Your task to perform on an android device: empty trash in the gmail app Image 0: 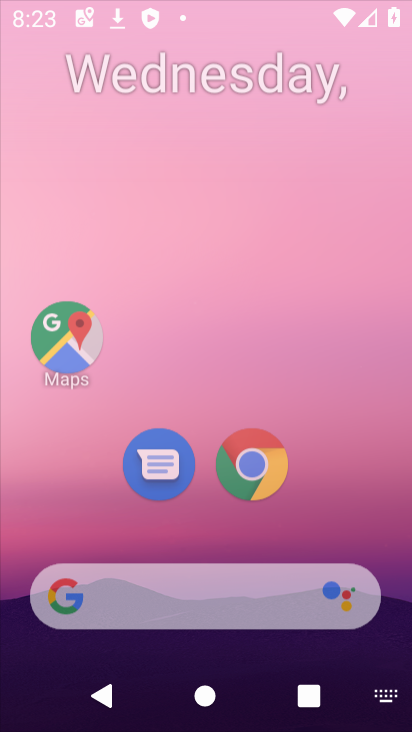
Step 0: drag from (205, 255) to (183, 179)
Your task to perform on an android device: empty trash in the gmail app Image 1: 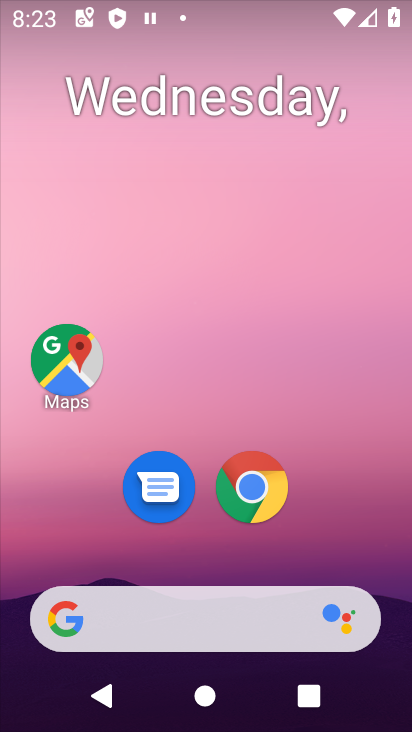
Step 1: drag from (272, 689) to (207, 220)
Your task to perform on an android device: empty trash in the gmail app Image 2: 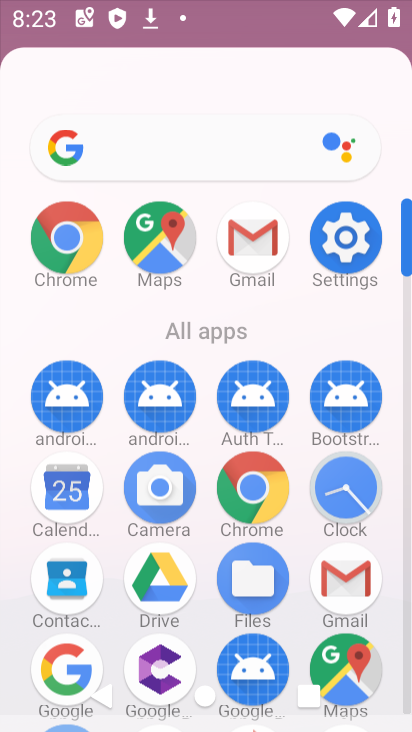
Step 2: drag from (325, 596) to (273, 159)
Your task to perform on an android device: empty trash in the gmail app Image 3: 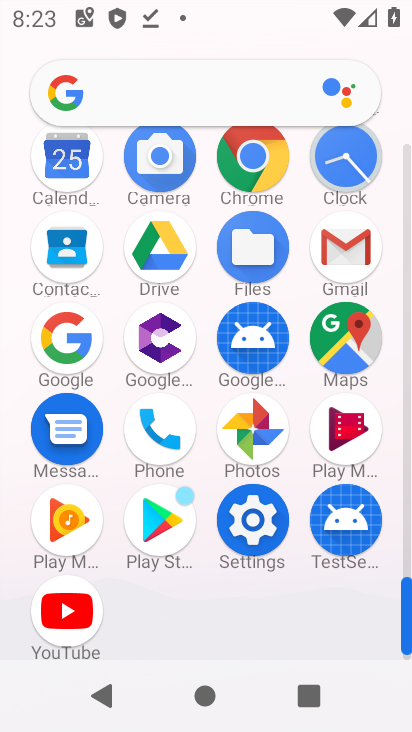
Step 3: click (326, 244)
Your task to perform on an android device: empty trash in the gmail app Image 4: 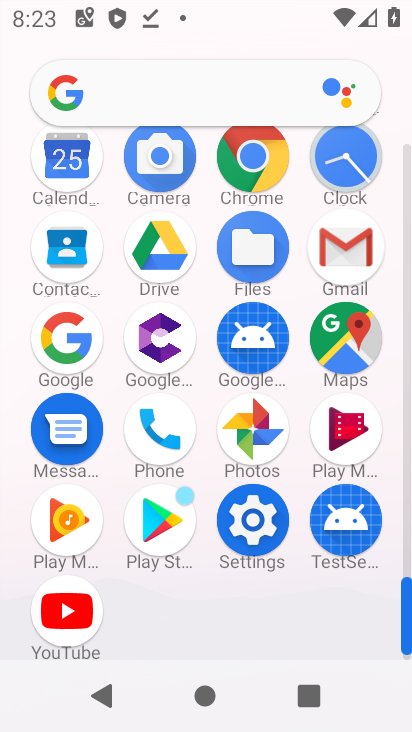
Step 4: click (332, 243)
Your task to perform on an android device: empty trash in the gmail app Image 5: 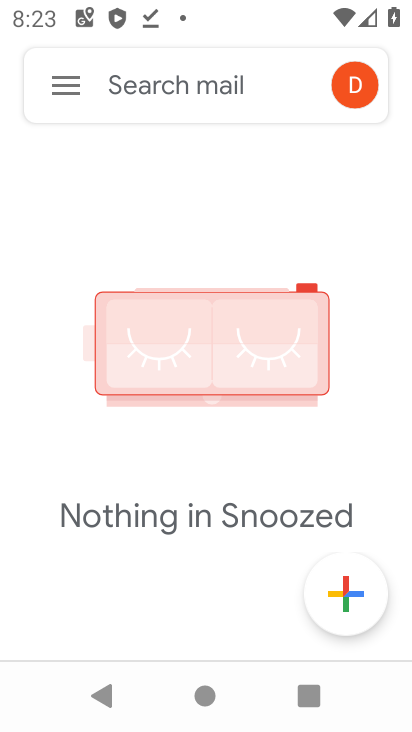
Step 5: click (78, 90)
Your task to perform on an android device: empty trash in the gmail app Image 6: 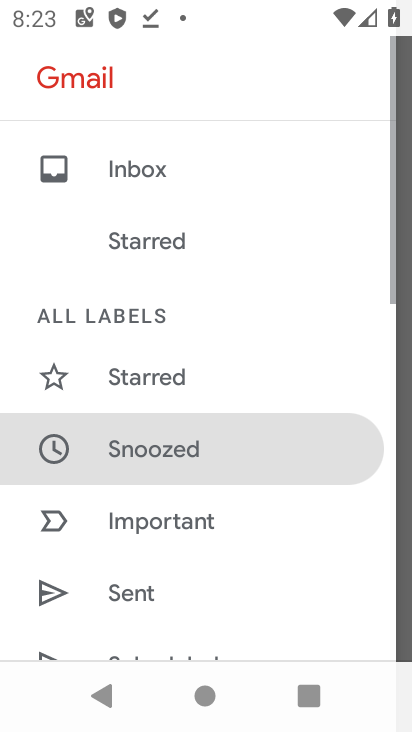
Step 6: click (78, 90)
Your task to perform on an android device: empty trash in the gmail app Image 7: 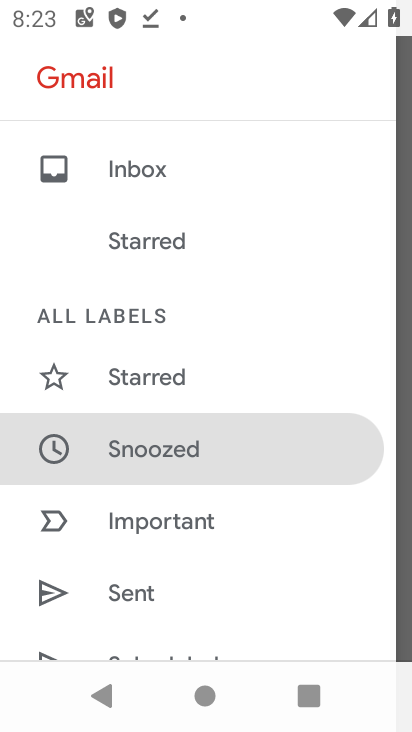
Step 7: drag from (145, 579) to (135, 86)
Your task to perform on an android device: empty trash in the gmail app Image 8: 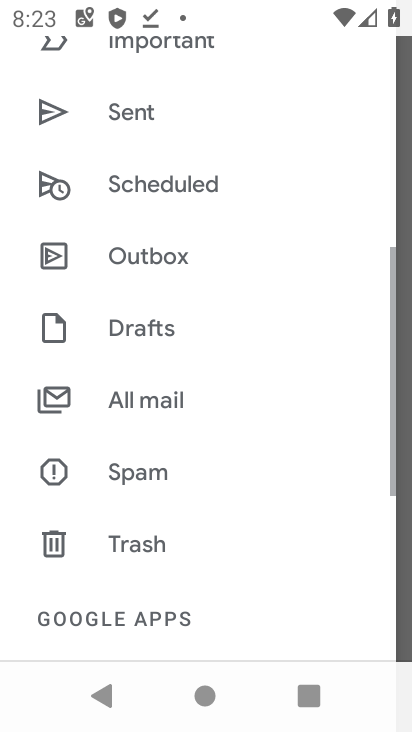
Step 8: drag from (187, 368) to (187, 85)
Your task to perform on an android device: empty trash in the gmail app Image 9: 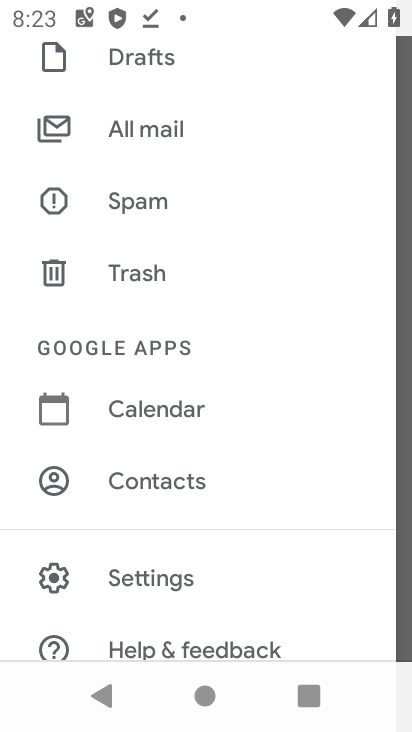
Step 9: click (127, 274)
Your task to perform on an android device: empty trash in the gmail app Image 10: 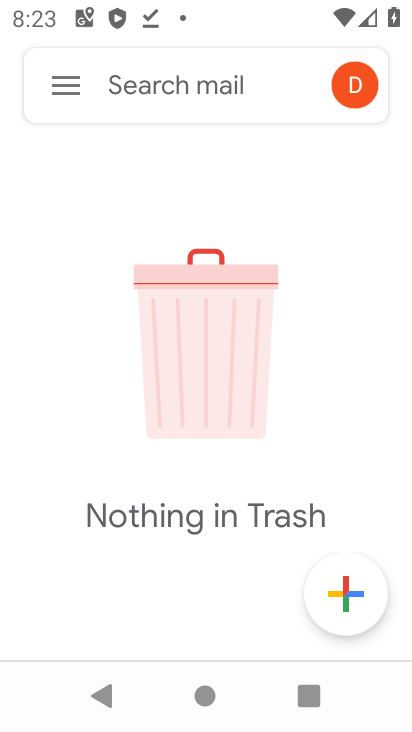
Step 10: task complete